Your task to perform on an android device: turn off priority inbox in the gmail app Image 0: 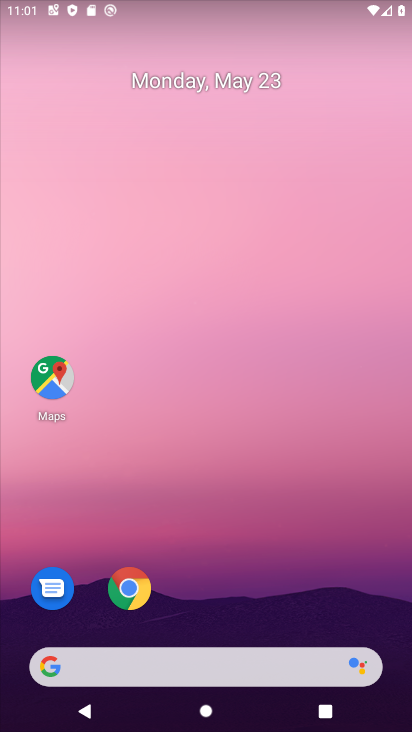
Step 0: drag from (345, 571) to (301, 208)
Your task to perform on an android device: turn off priority inbox in the gmail app Image 1: 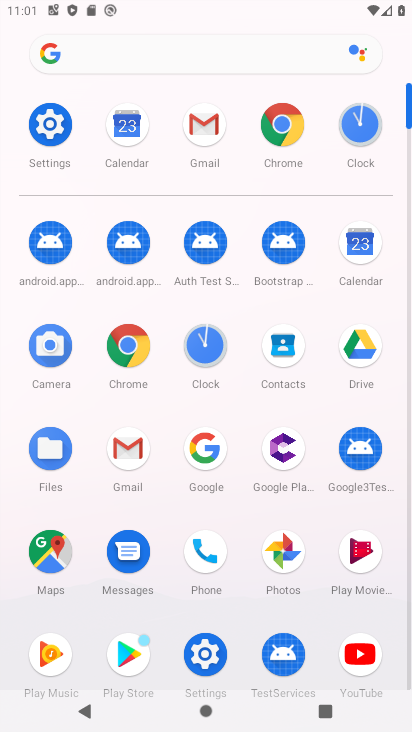
Step 1: click (205, 125)
Your task to perform on an android device: turn off priority inbox in the gmail app Image 2: 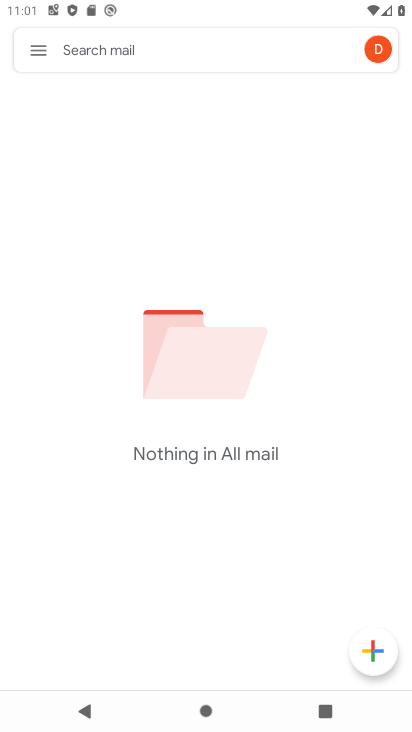
Step 2: click (23, 53)
Your task to perform on an android device: turn off priority inbox in the gmail app Image 3: 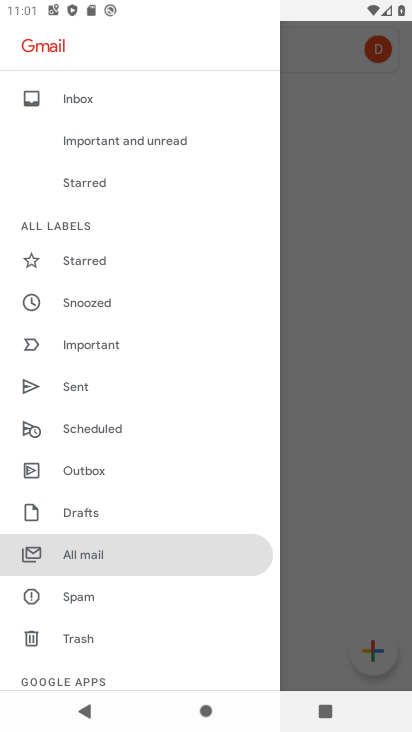
Step 3: drag from (121, 660) to (214, 202)
Your task to perform on an android device: turn off priority inbox in the gmail app Image 4: 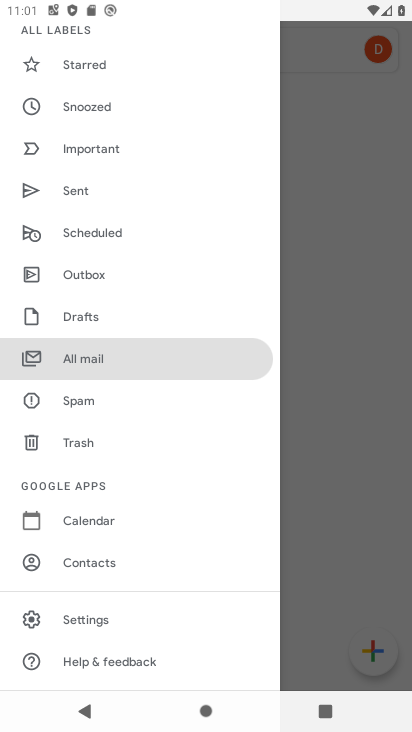
Step 4: click (108, 618)
Your task to perform on an android device: turn off priority inbox in the gmail app Image 5: 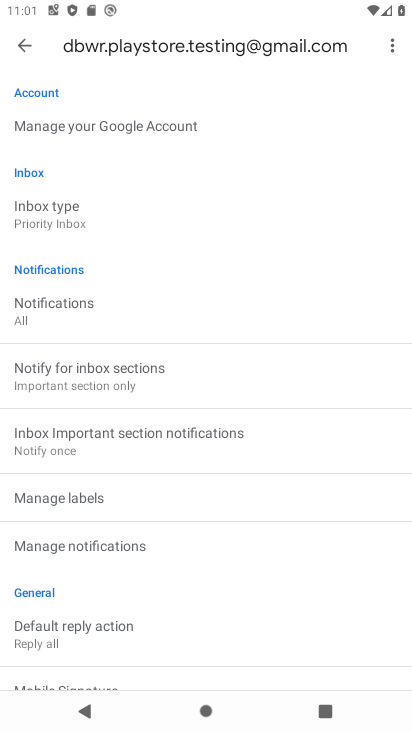
Step 5: click (89, 205)
Your task to perform on an android device: turn off priority inbox in the gmail app Image 6: 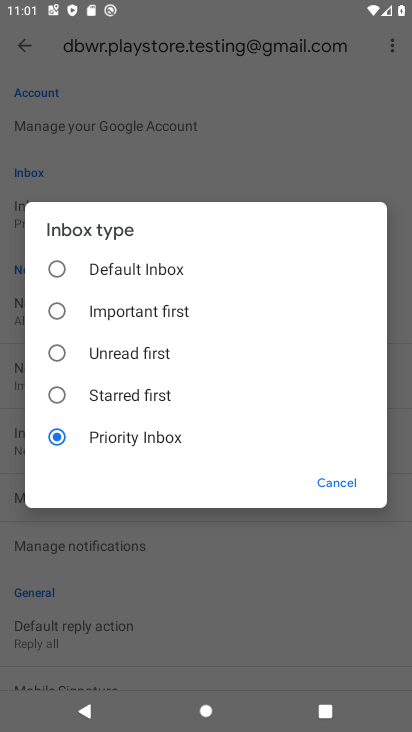
Step 6: task complete